Your task to perform on an android device: Is it going to rain tomorrow? Image 0: 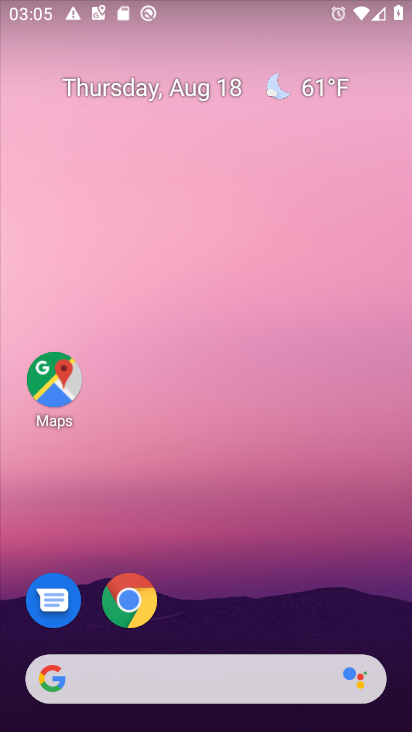
Step 0: press home button
Your task to perform on an android device: Is it going to rain tomorrow? Image 1: 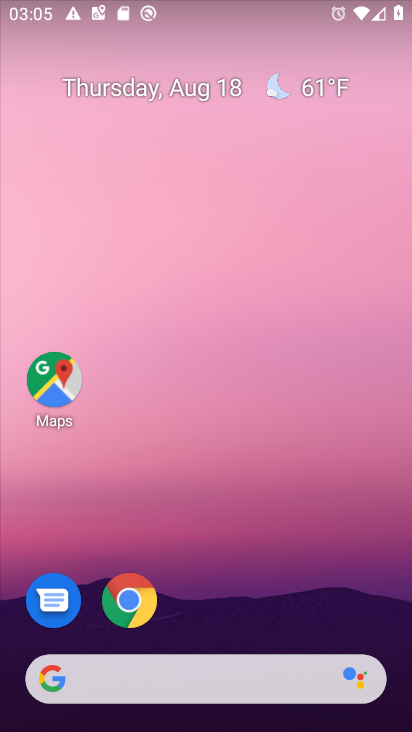
Step 1: click (51, 679)
Your task to perform on an android device: Is it going to rain tomorrow? Image 2: 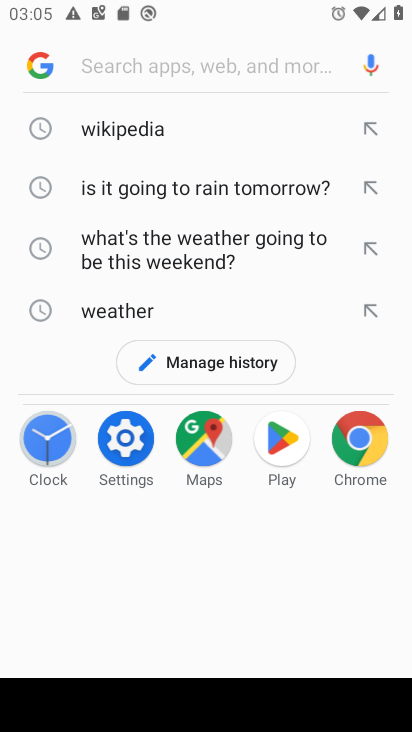
Step 2: type "rain tomorrow?"
Your task to perform on an android device: Is it going to rain tomorrow? Image 3: 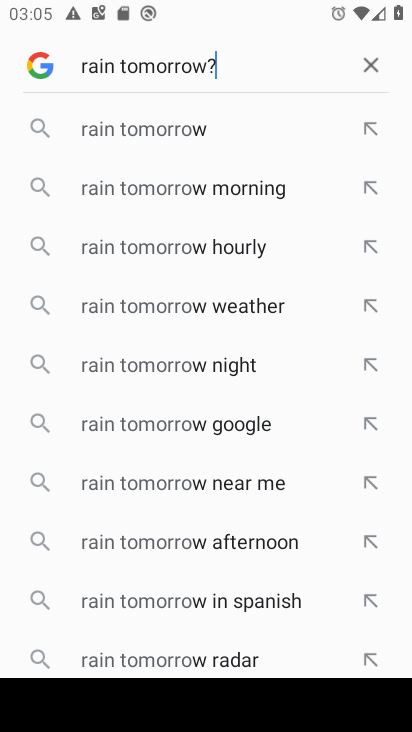
Step 3: press enter
Your task to perform on an android device: Is it going to rain tomorrow? Image 4: 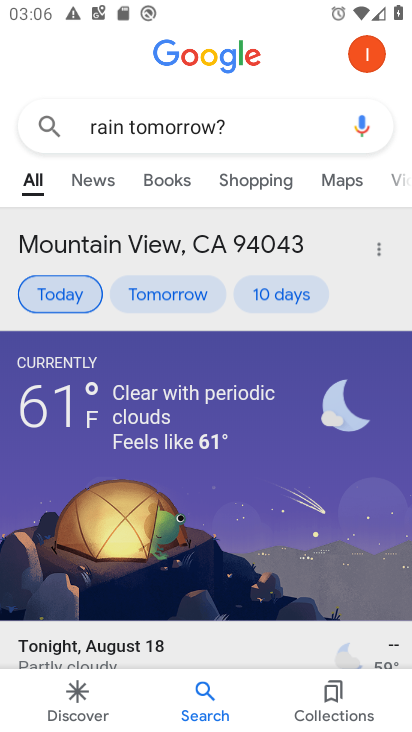
Step 4: task complete